Your task to perform on an android device: Go to location settings Image 0: 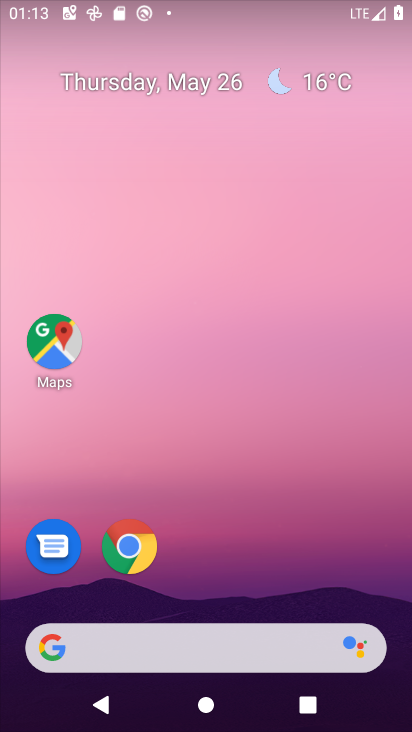
Step 0: drag from (190, 522) to (244, 206)
Your task to perform on an android device: Go to location settings Image 1: 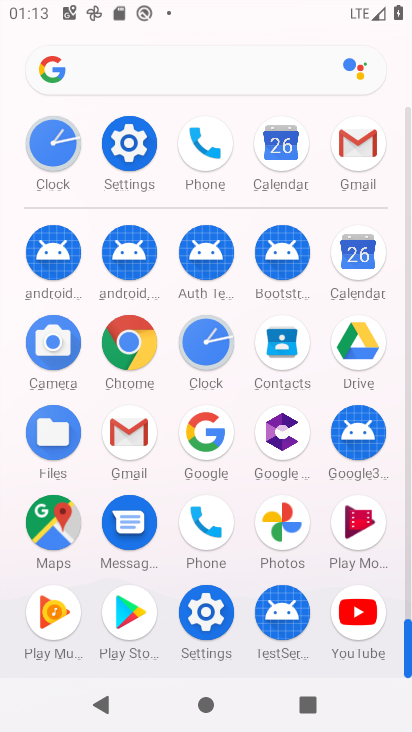
Step 1: click (208, 610)
Your task to perform on an android device: Go to location settings Image 2: 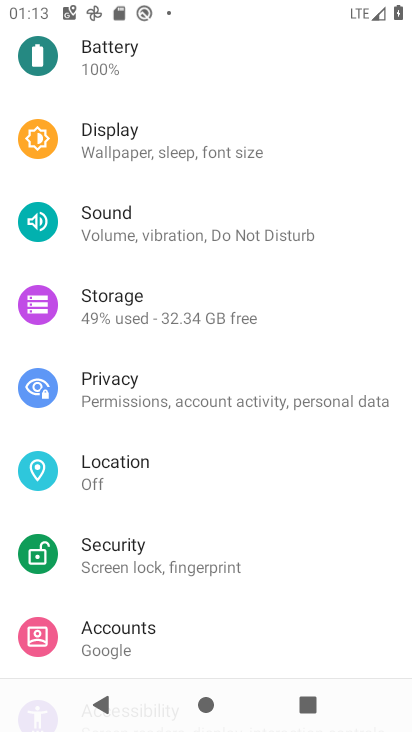
Step 2: drag from (175, 163) to (170, 512)
Your task to perform on an android device: Go to location settings Image 3: 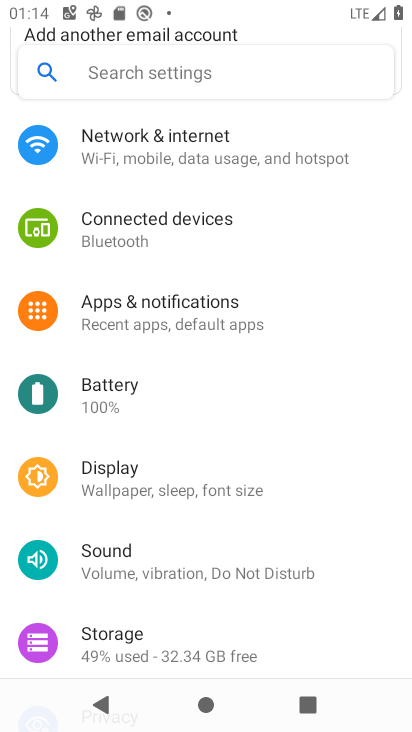
Step 3: drag from (236, 188) to (294, 176)
Your task to perform on an android device: Go to location settings Image 4: 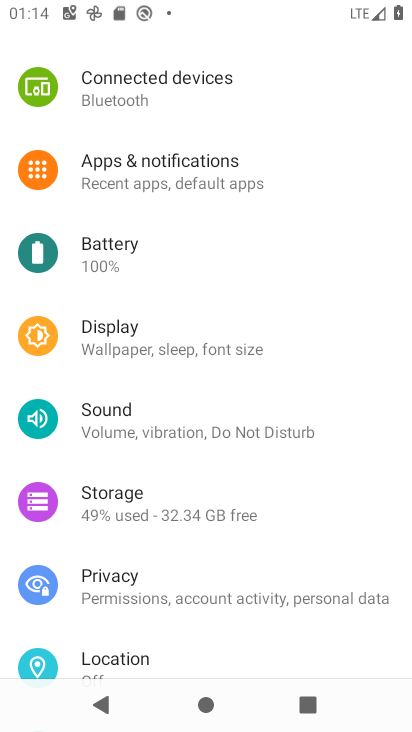
Step 4: click (144, 655)
Your task to perform on an android device: Go to location settings Image 5: 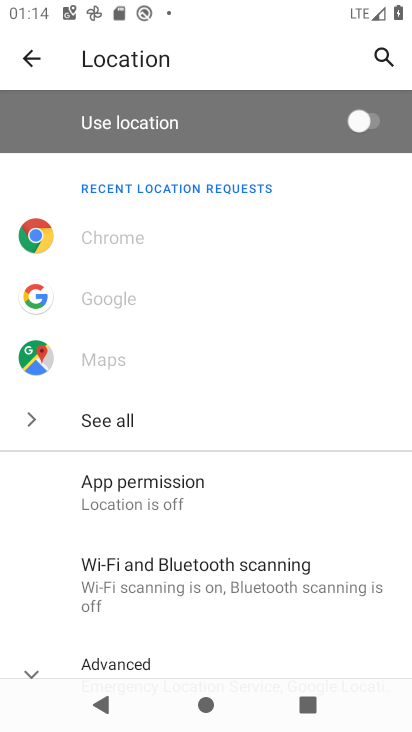
Step 5: task complete